Your task to perform on an android device: show emergency info Image 0: 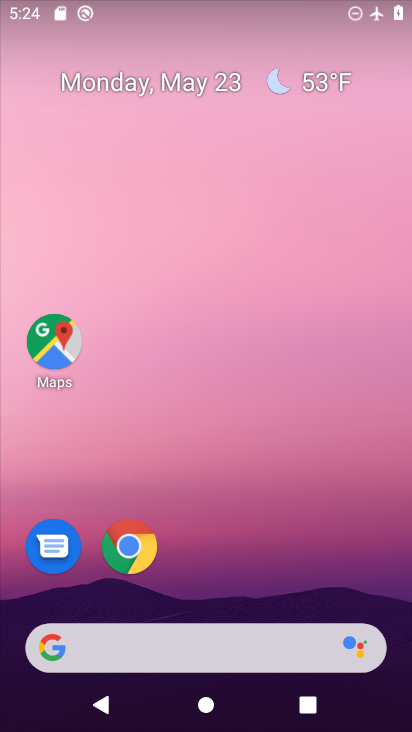
Step 0: drag from (256, 532) to (241, 80)
Your task to perform on an android device: show emergency info Image 1: 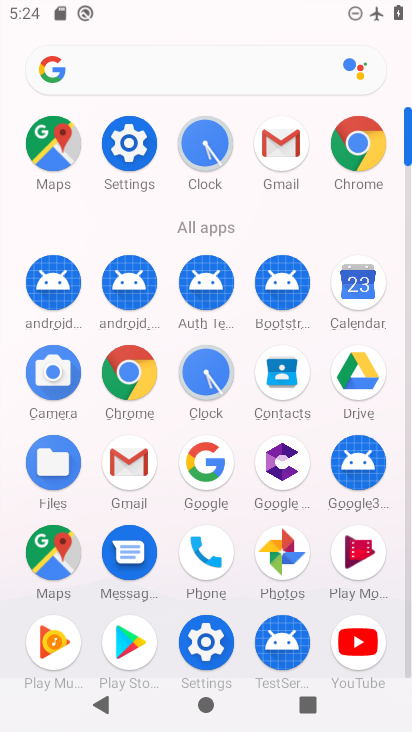
Step 1: click (134, 145)
Your task to perform on an android device: show emergency info Image 2: 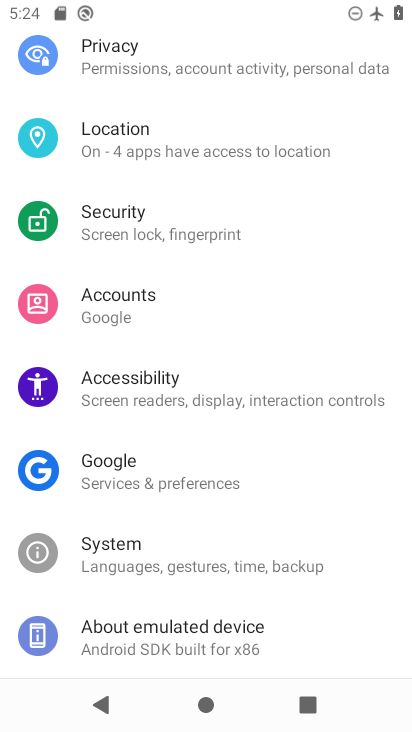
Step 2: click (158, 629)
Your task to perform on an android device: show emergency info Image 3: 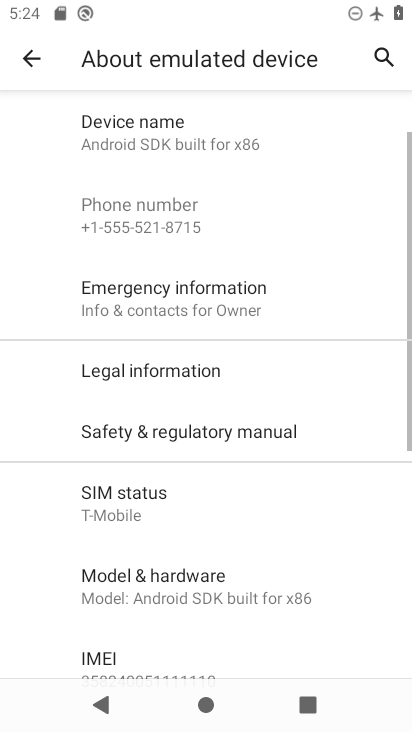
Step 3: drag from (273, 600) to (319, 211)
Your task to perform on an android device: show emergency info Image 4: 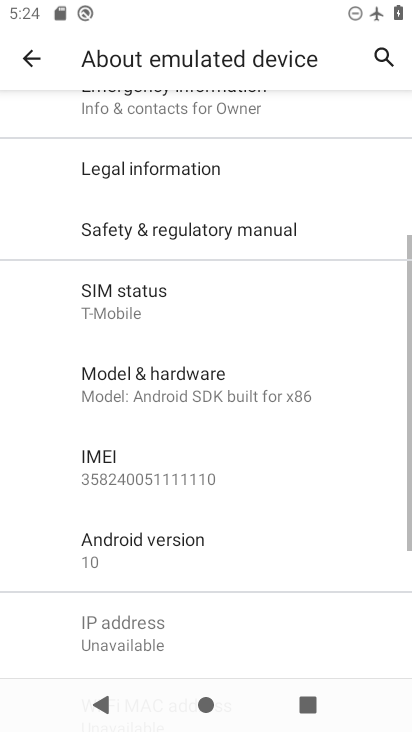
Step 4: drag from (251, 192) to (231, 702)
Your task to perform on an android device: show emergency info Image 5: 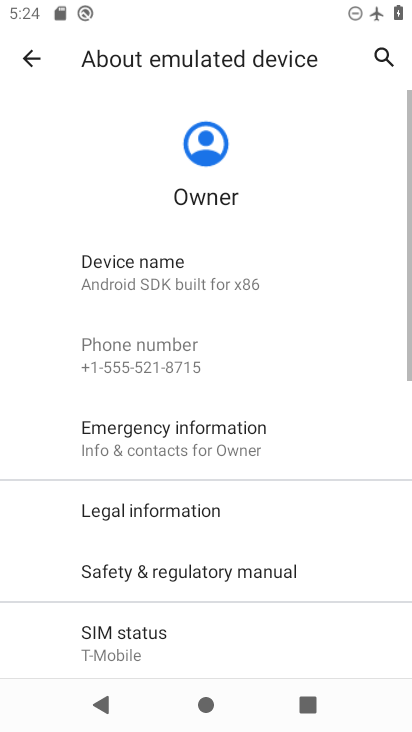
Step 5: click (225, 448)
Your task to perform on an android device: show emergency info Image 6: 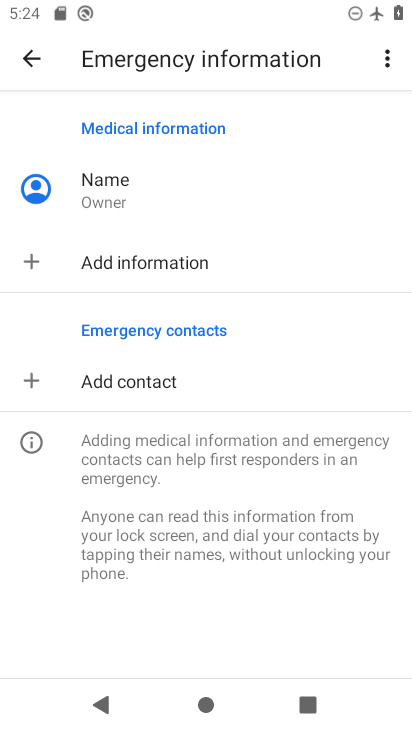
Step 6: task complete